Your task to perform on an android device: Open Amazon Image 0: 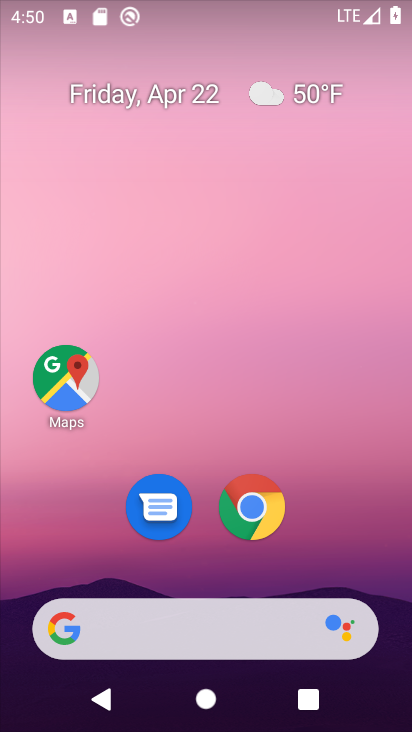
Step 0: click (248, 508)
Your task to perform on an android device: Open Amazon Image 1: 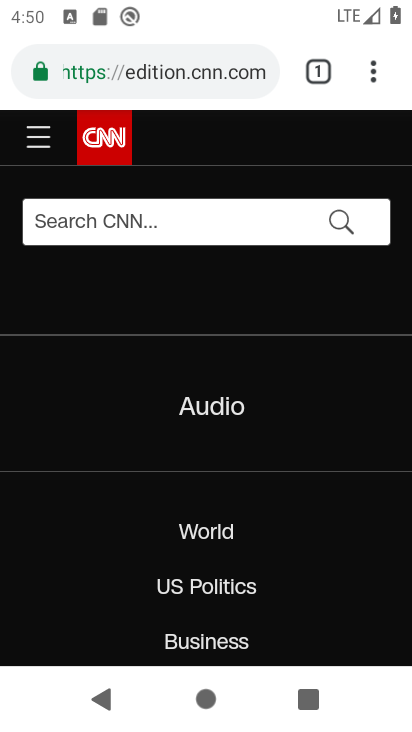
Step 1: click (138, 69)
Your task to perform on an android device: Open Amazon Image 2: 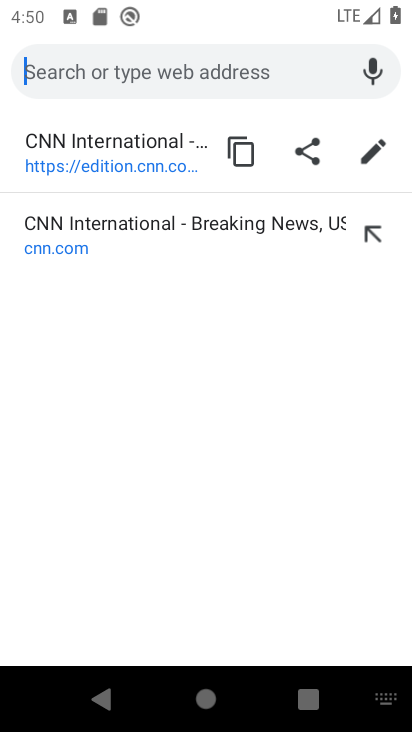
Step 2: type "amazon"
Your task to perform on an android device: Open Amazon Image 3: 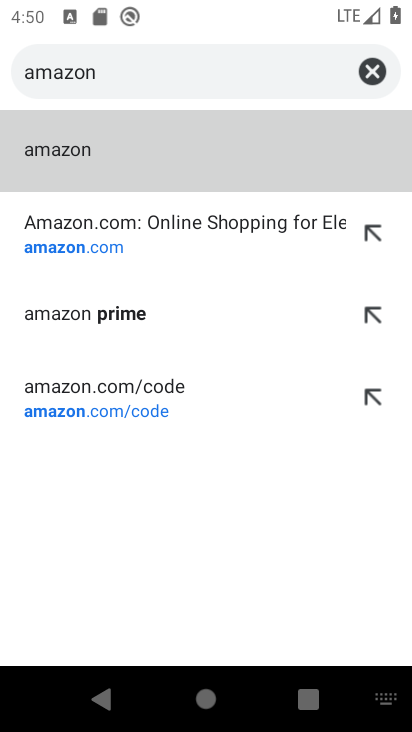
Step 3: click (76, 226)
Your task to perform on an android device: Open Amazon Image 4: 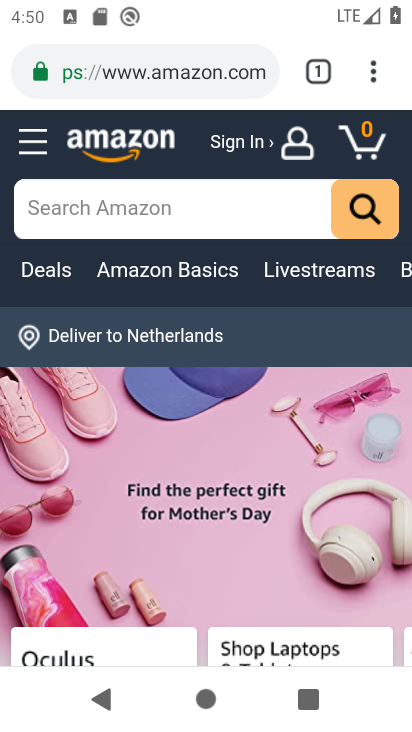
Step 4: task complete